Your task to perform on an android device: What is the news today? Image 0: 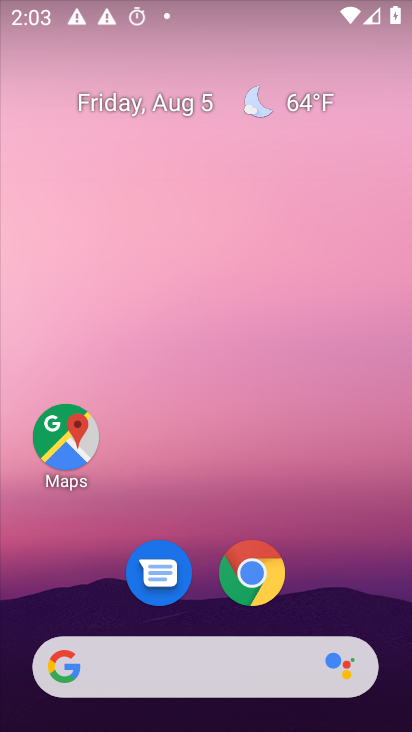
Step 0: press home button
Your task to perform on an android device: What is the news today? Image 1: 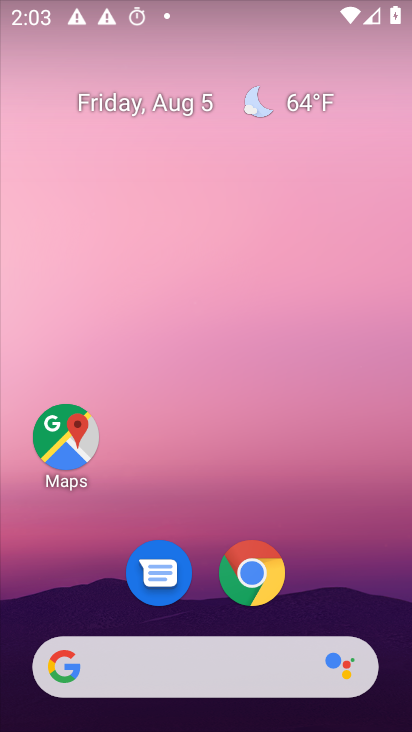
Step 1: task complete